Your task to perform on an android device: turn off wifi Image 0: 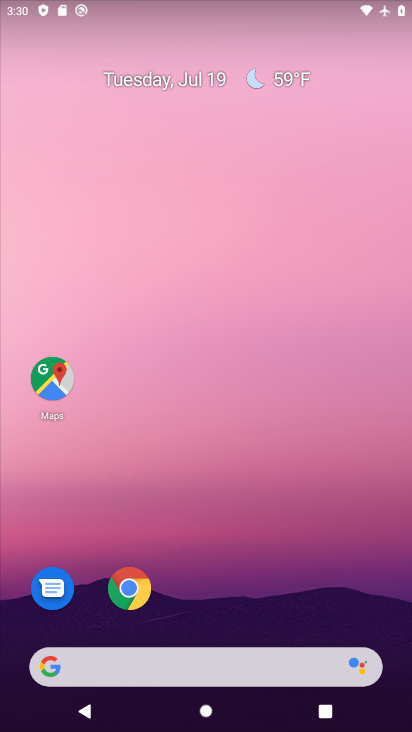
Step 0: press home button
Your task to perform on an android device: turn off wifi Image 1: 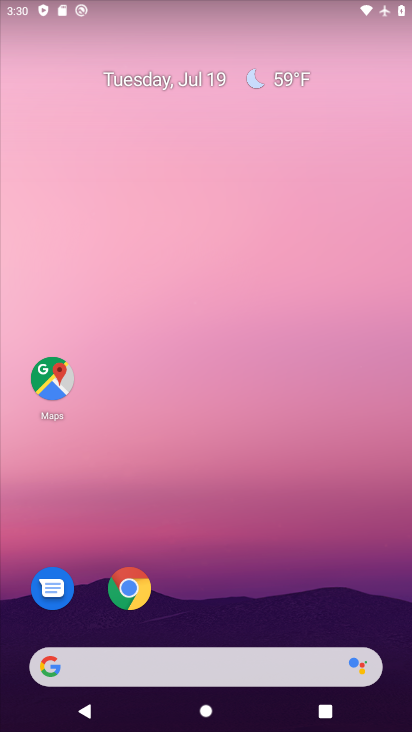
Step 1: drag from (207, 0) to (148, 558)
Your task to perform on an android device: turn off wifi Image 2: 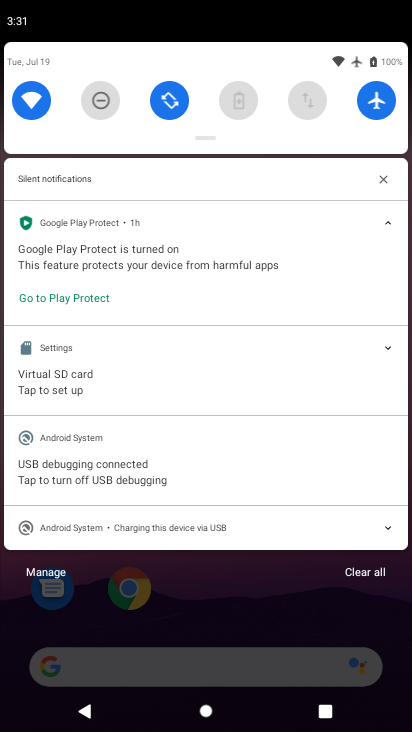
Step 2: click (33, 100)
Your task to perform on an android device: turn off wifi Image 3: 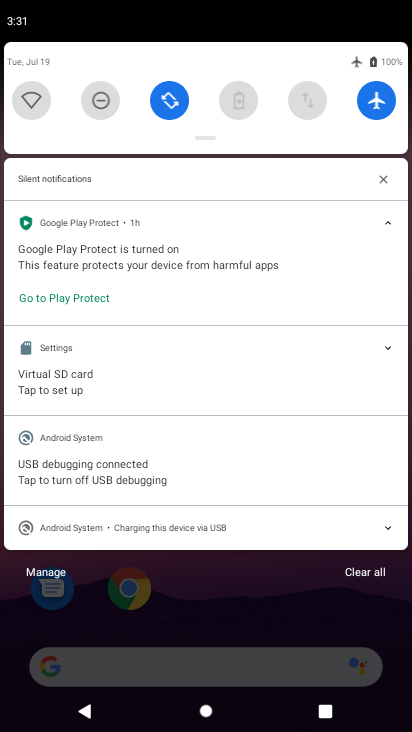
Step 3: task complete